Your task to perform on an android device: find snoozed emails in the gmail app Image 0: 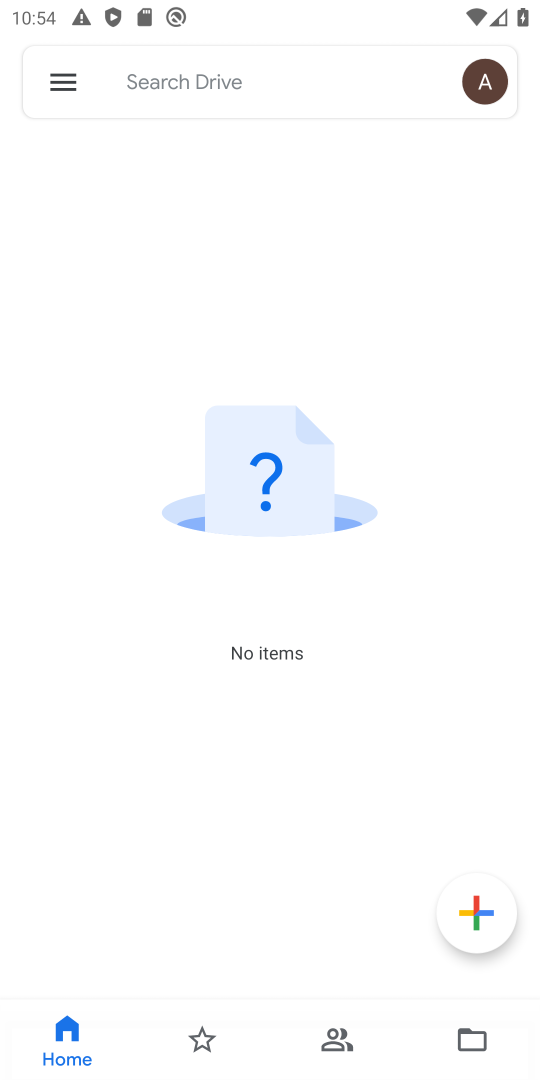
Step 0: press home button
Your task to perform on an android device: find snoozed emails in the gmail app Image 1: 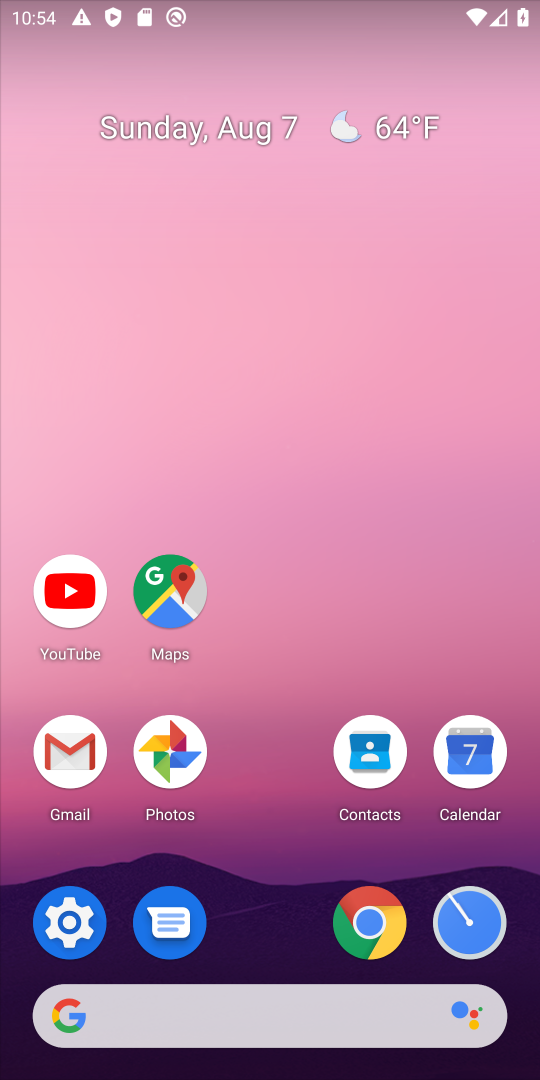
Step 1: click (69, 739)
Your task to perform on an android device: find snoozed emails in the gmail app Image 2: 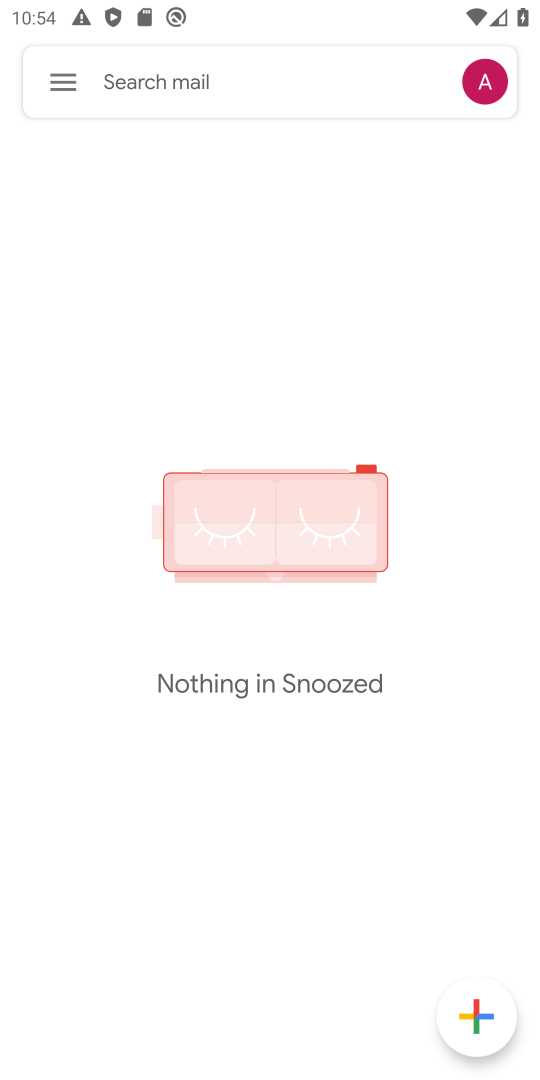
Step 2: click (61, 68)
Your task to perform on an android device: find snoozed emails in the gmail app Image 3: 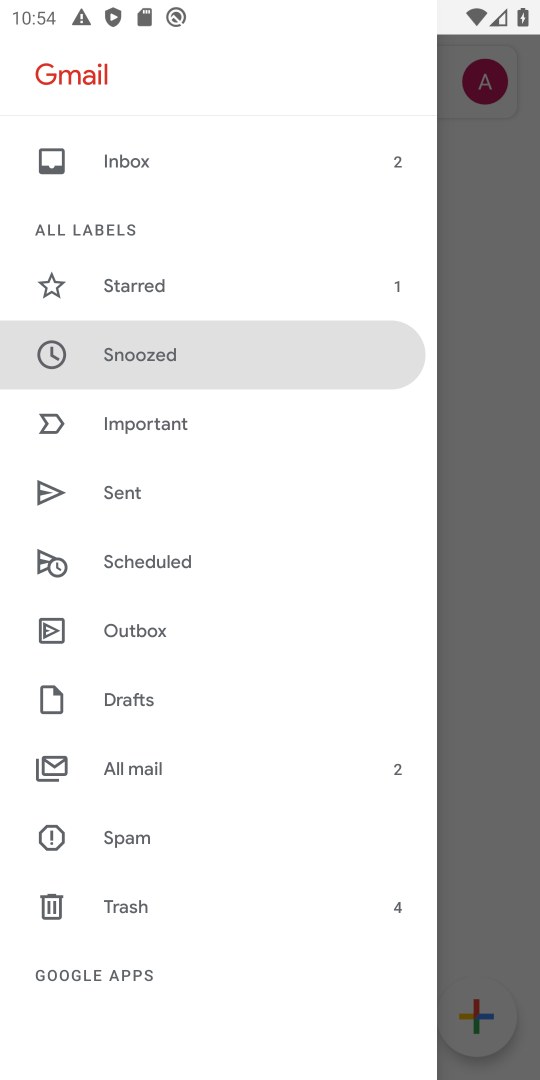
Step 3: click (172, 366)
Your task to perform on an android device: find snoozed emails in the gmail app Image 4: 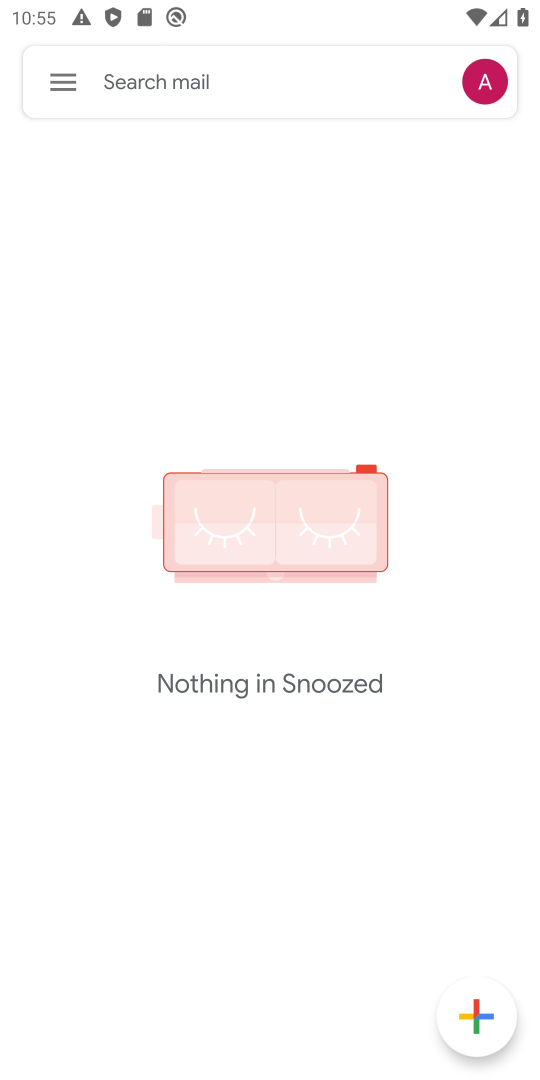
Step 4: task complete